Your task to perform on an android device: turn smart compose on in the gmail app Image 0: 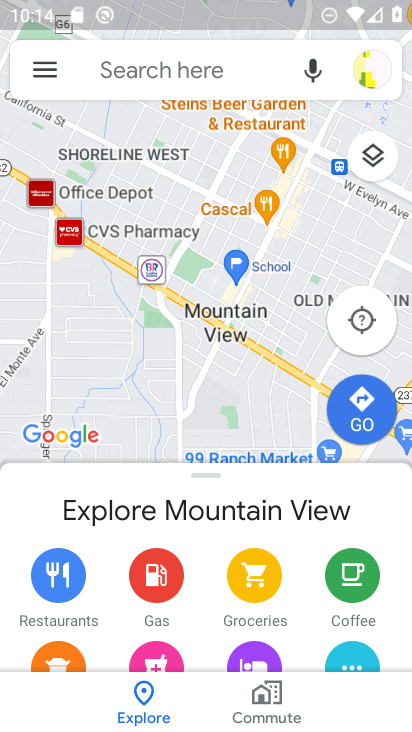
Step 0: press home button
Your task to perform on an android device: turn smart compose on in the gmail app Image 1: 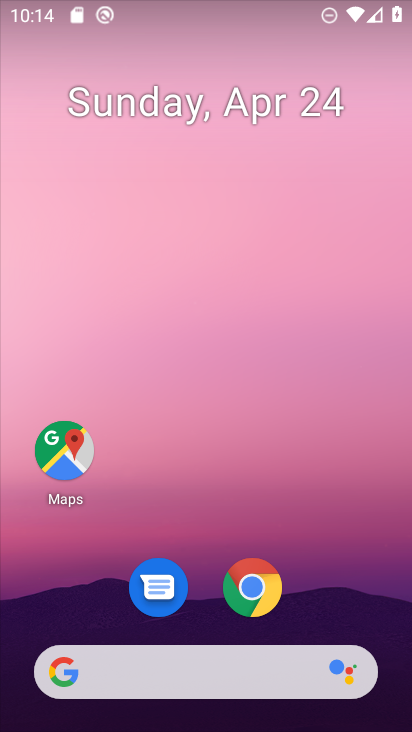
Step 1: drag from (363, 563) to (367, 92)
Your task to perform on an android device: turn smart compose on in the gmail app Image 2: 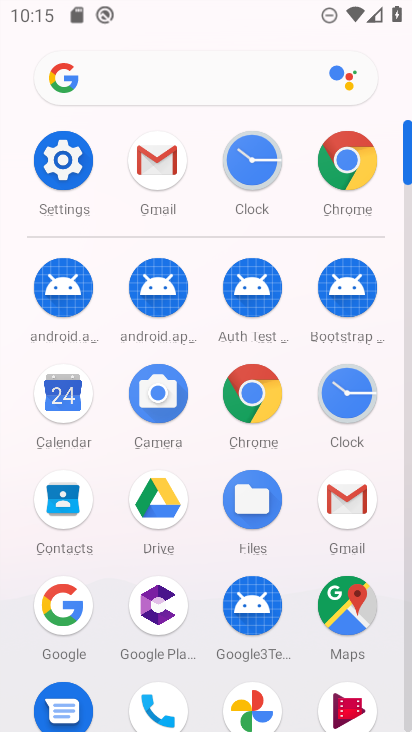
Step 2: click (338, 510)
Your task to perform on an android device: turn smart compose on in the gmail app Image 3: 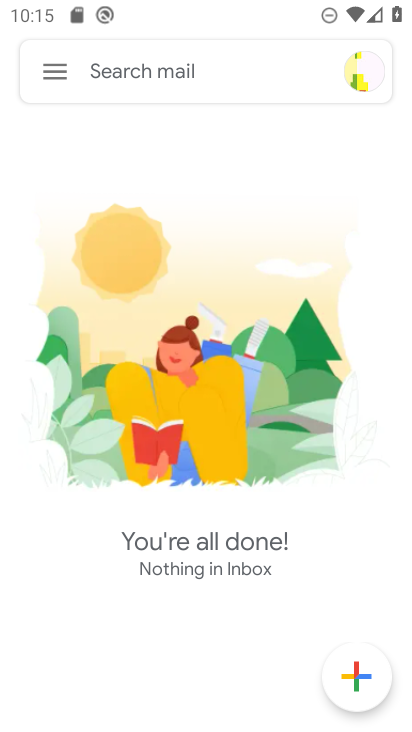
Step 3: click (65, 72)
Your task to perform on an android device: turn smart compose on in the gmail app Image 4: 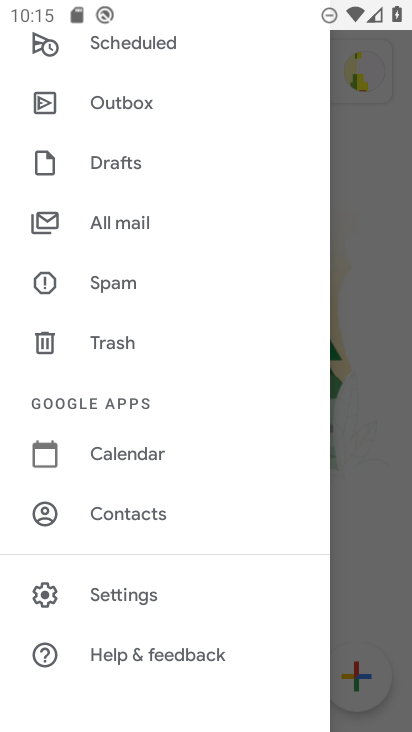
Step 4: click (147, 593)
Your task to perform on an android device: turn smart compose on in the gmail app Image 5: 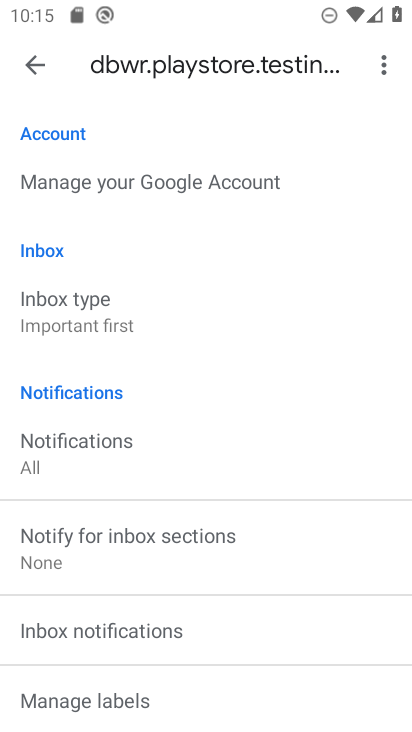
Step 5: task complete